Your task to perform on an android device: check google app version Image 0: 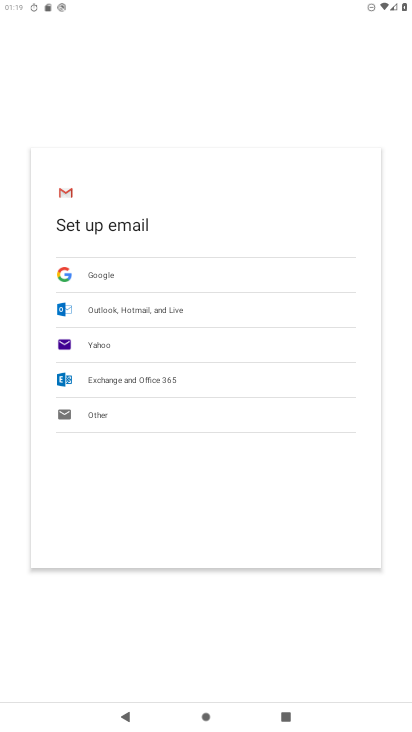
Step 0: press home button
Your task to perform on an android device: check google app version Image 1: 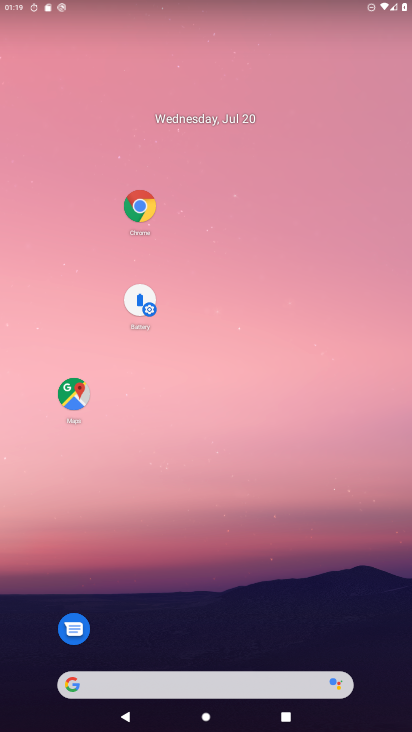
Step 1: drag from (177, 626) to (329, 72)
Your task to perform on an android device: check google app version Image 2: 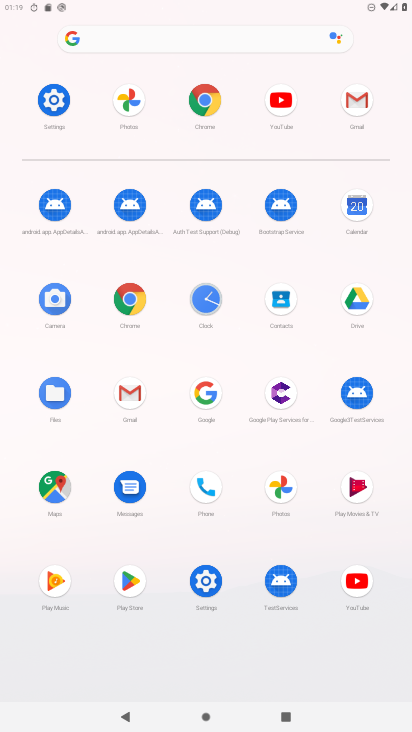
Step 2: click (208, 388)
Your task to perform on an android device: check google app version Image 3: 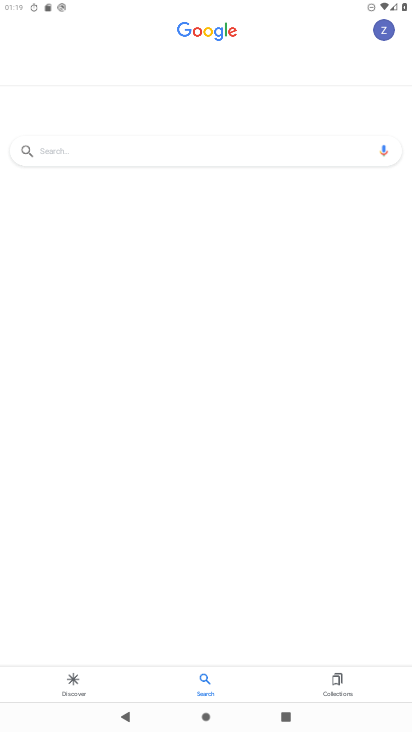
Step 3: drag from (137, 583) to (215, 198)
Your task to perform on an android device: check google app version Image 4: 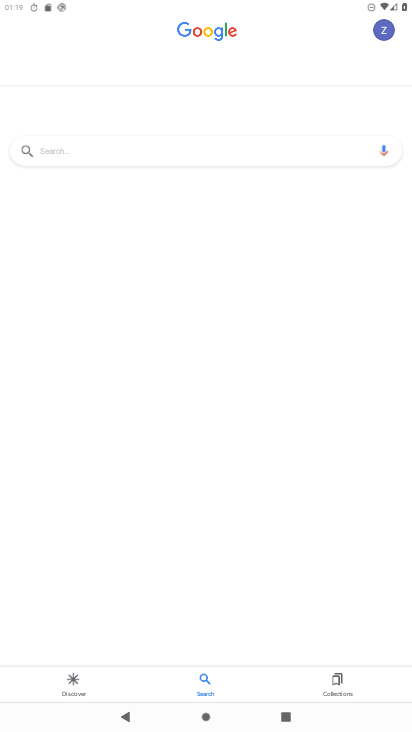
Step 4: click (391, 21)
Your task to perform on an android device: check google app version Image 5: 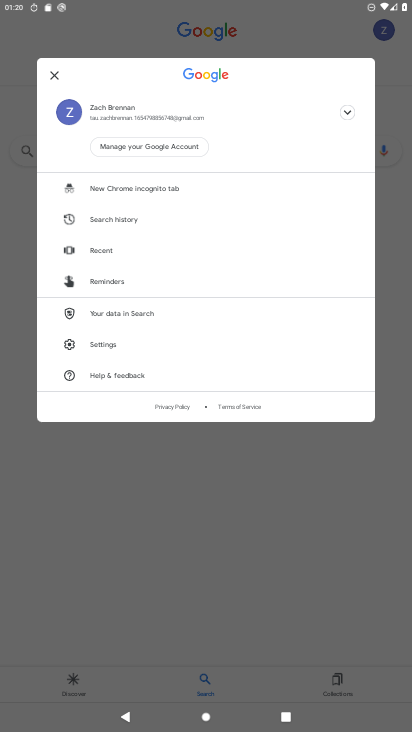
Step 5: click (110, 346)
Your task to perform on an android device: check google app version Image 6: 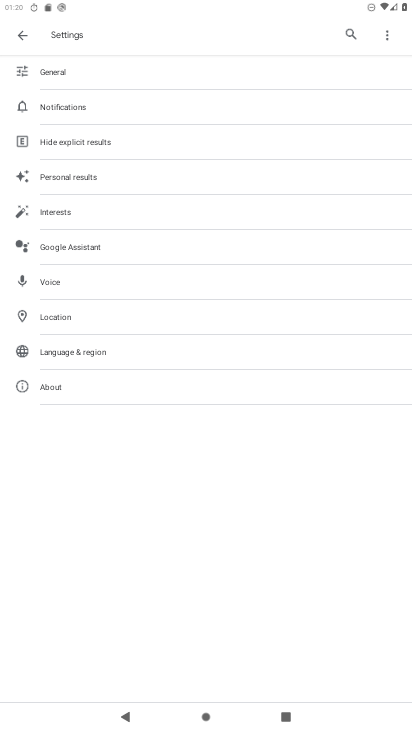
Step 6: click (54, 382)
Your task to perform on an android device: check google app version Image 7: 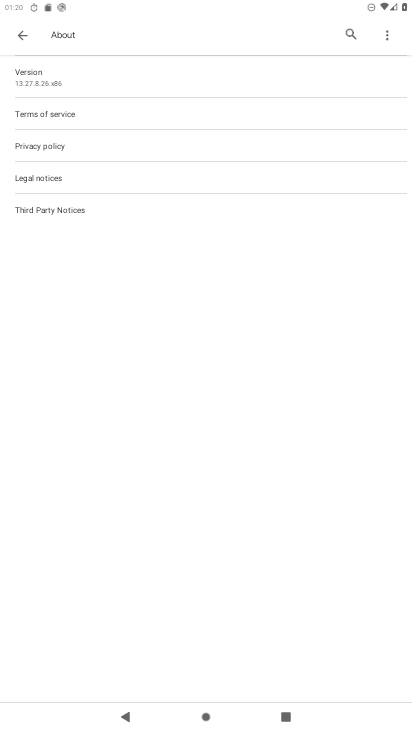
Step 7: click (78, 80)
Your task to perform on an android device: check google app version Image 8: 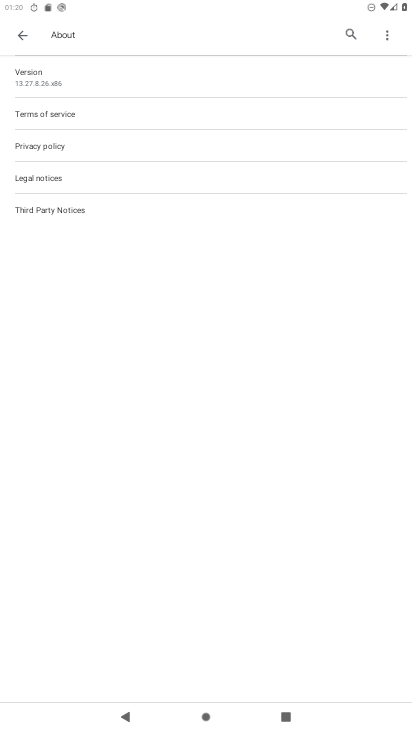
Step 8: task complete